Your task to perform on an android device: turn notification dots on Image 0: 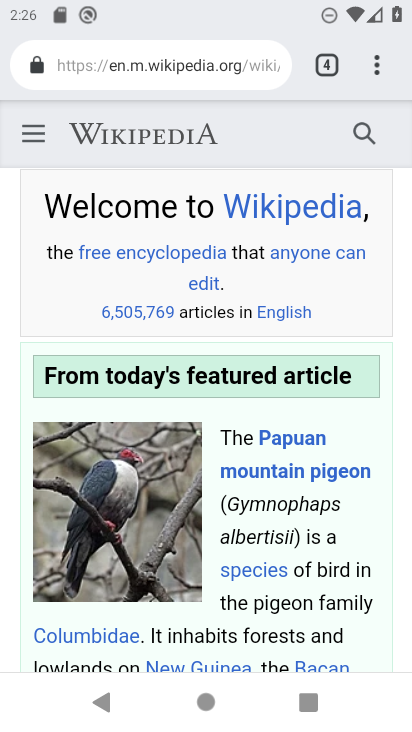
Step 0: press home button
Your task to perform on an android device: turn notification dots on Image 1: 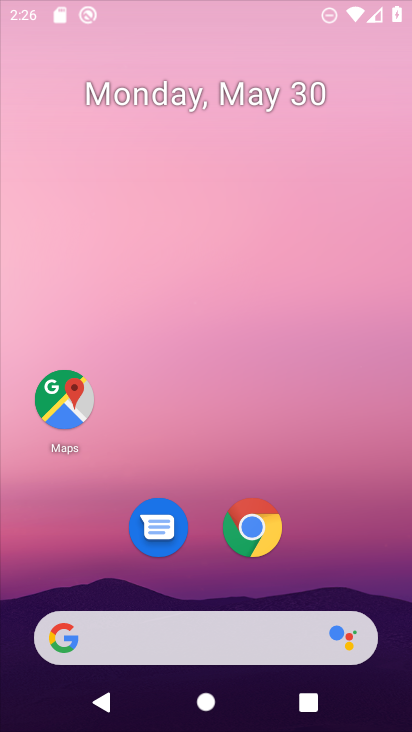
Step 1: drag from (252, 695) to (151, 37)
Your task to perform on an android device: turn notification dots on Image 2: 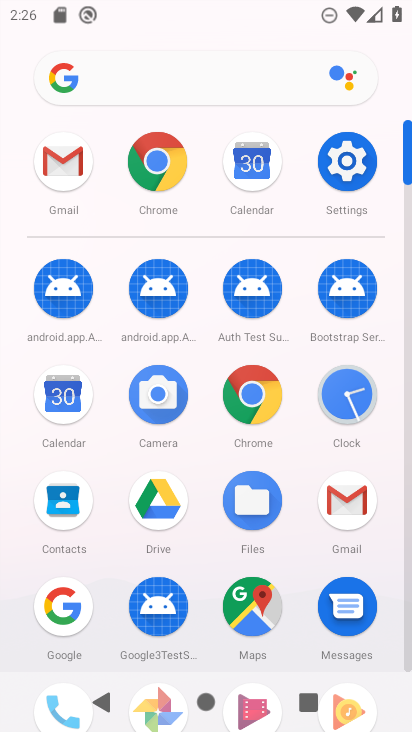
Step 2: click (344, 175)
Your task to perform on an android device: turn notification dots on Image 3: 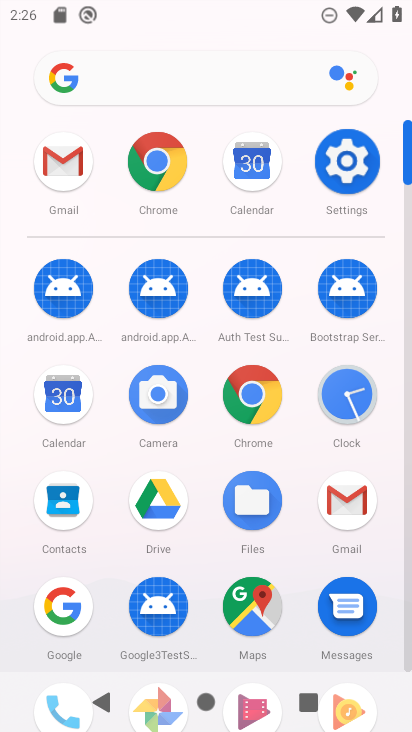
Step 3: click (344, 175)
Your task to perform on an android device: turn notification dots on Image 4: 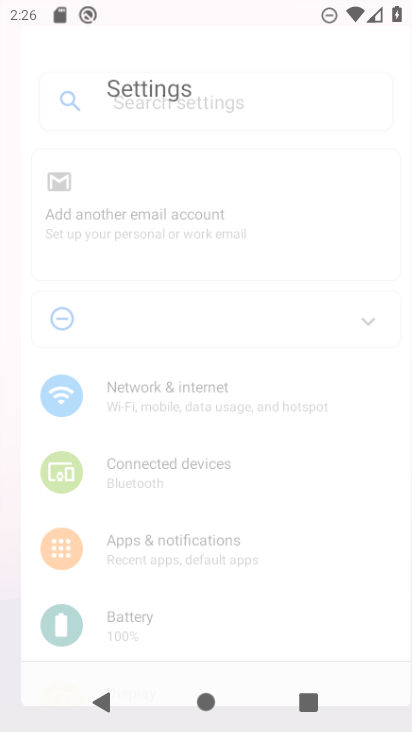
Step 4: click (344, 175)
Your task to perform on an android device: turn notification dots on Image 5: 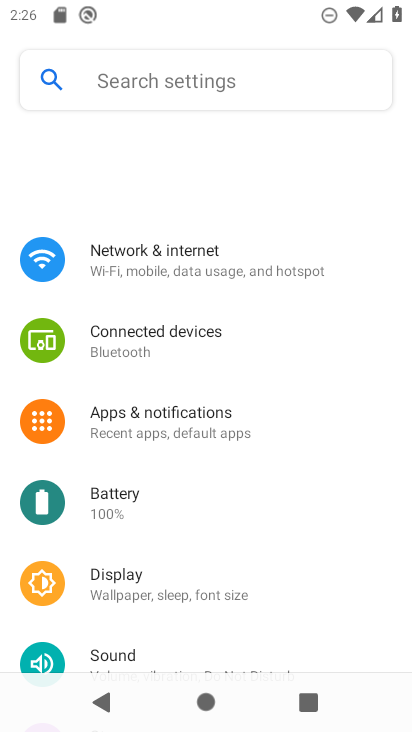
Step 5: click (344, 175)
Your task to perform on an android device: turn notification dots on Image 6: 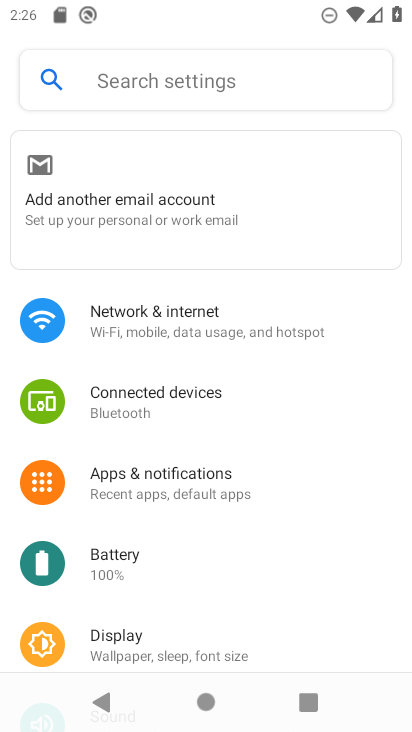
Step 6: click (148, 466)
Your task to perform on an android device: turn notification dots on Image 7: 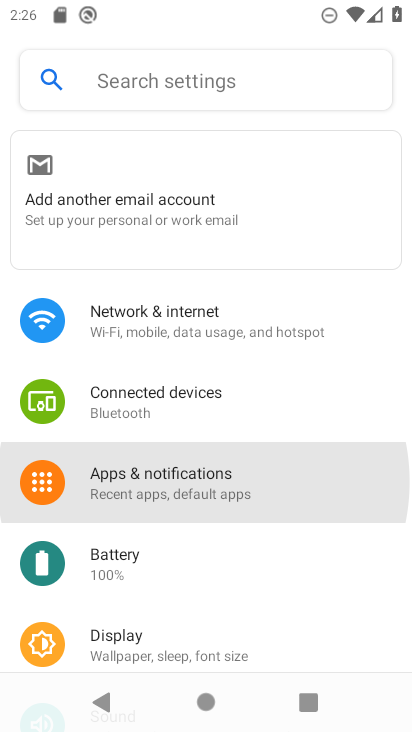
Step 7: click (152, 482)
Your task to perform on an android device: turn notification dots on Image 8: 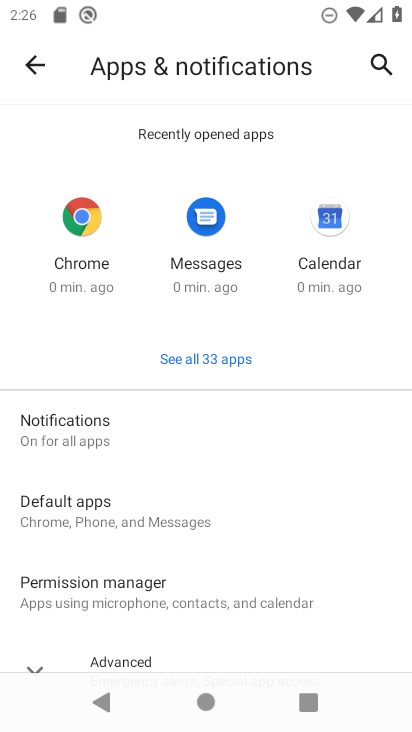
Step 8: click (79, 432)
Your task to perform on an android device: turn notification dots on Image 9: 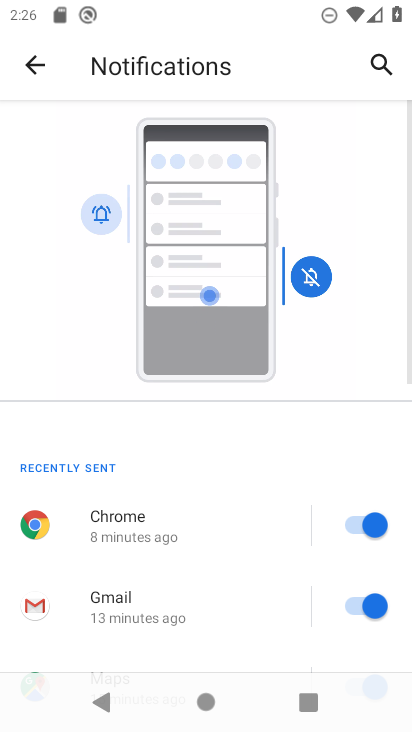
Step 9: drag from (140, 420) to (133, 371)
Your task to perform on an android device: turn notification dots on Image 10: 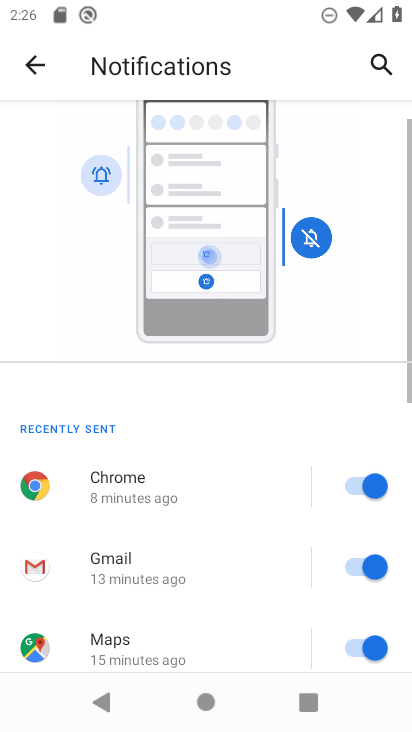
Step 10: drag from (151, 511) to (117, 252)
Your task to perform on an android device: turn notification dots on Image 11: 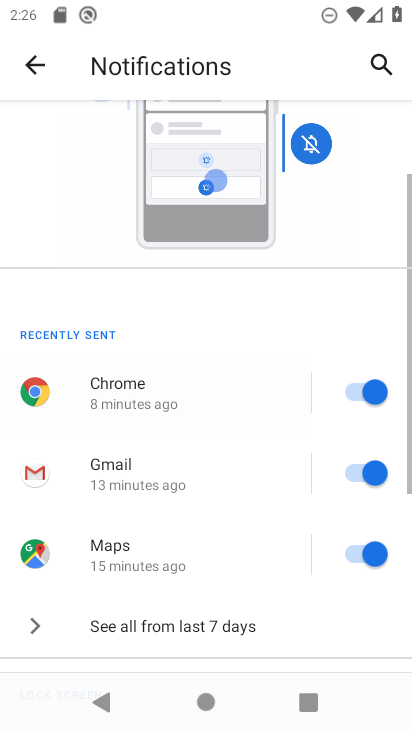
Step 11: drag from (207, 547) to (194, 281)
Your task to perform on an android device: turn notification dots on Image 12: 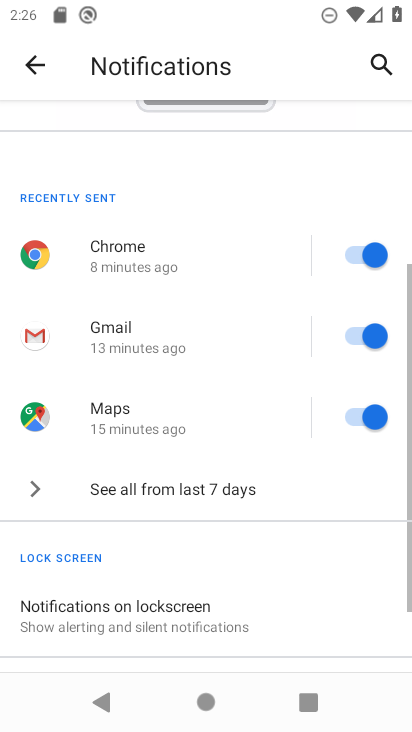
Step 12: drag from (200, 497) to (178, 286)
Your task to perform on an android device: turn notification dots on Image 13: 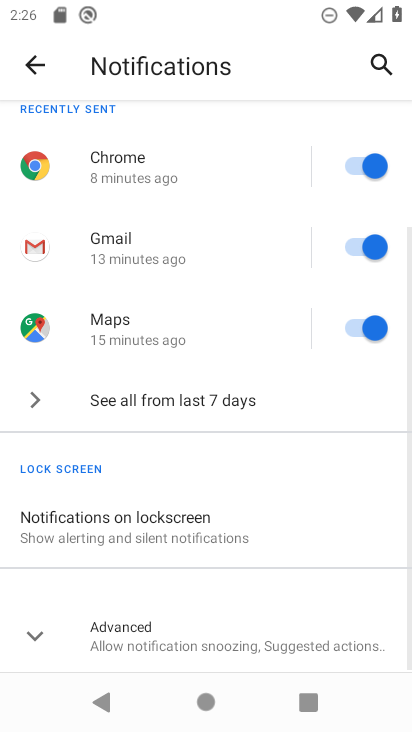
Step 13: drag from (188, 498) to (191, 242)
Your task to perform on an android device: turn notification dots on Image 14: 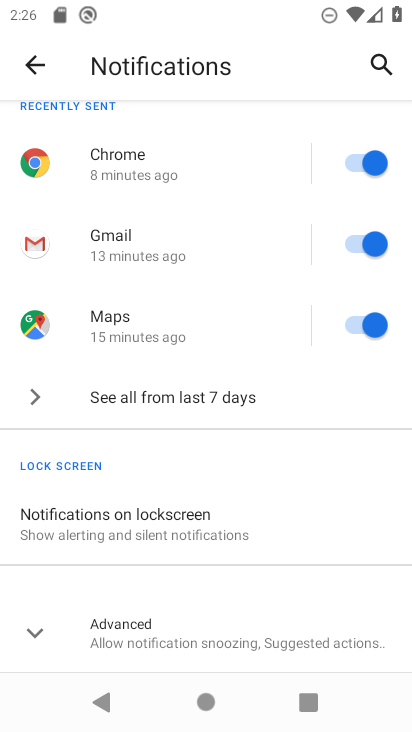
Step 14: drag from (223, 502) to (240, 239)
Your task to perform on an android device: turn notification dots on Image 15: 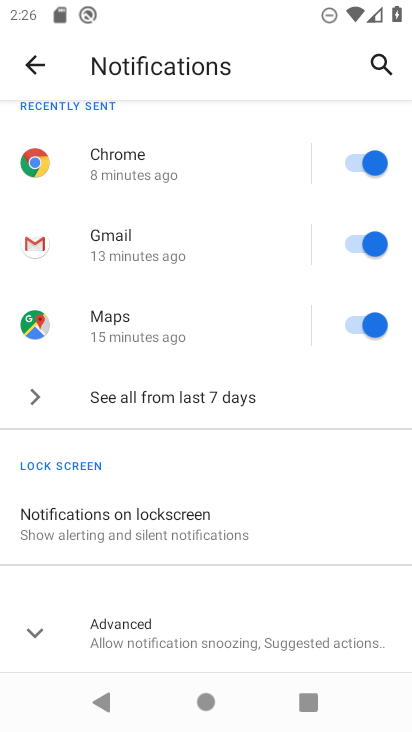
Step 15: click (143, 628)
Your task to perform on an android device: turn notification dots on Image 16: 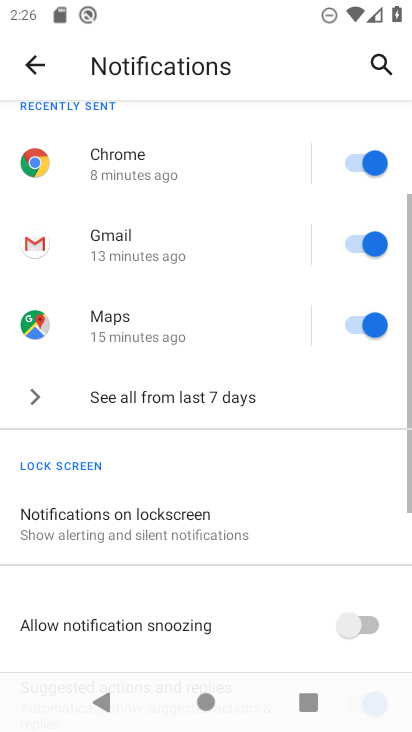
Step 16: drag from (201, 600) to (190, 221)
Your task to perform on an android device: turn notification dots on Image 17: 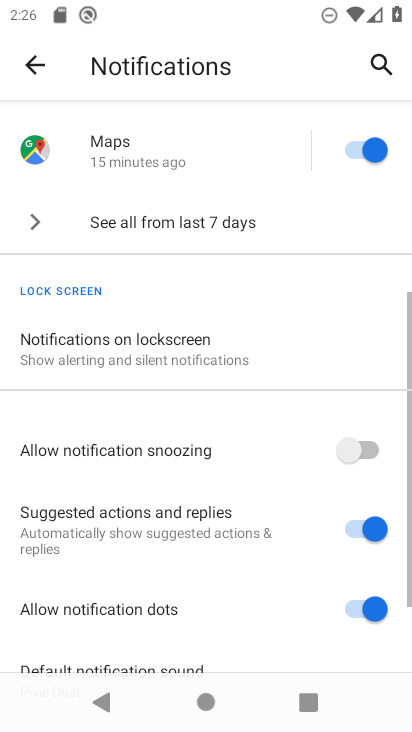
Step 17: drag from (265, 555) to (217, 195)
Your task to perform on an android device: turn notification dots on Image 18: 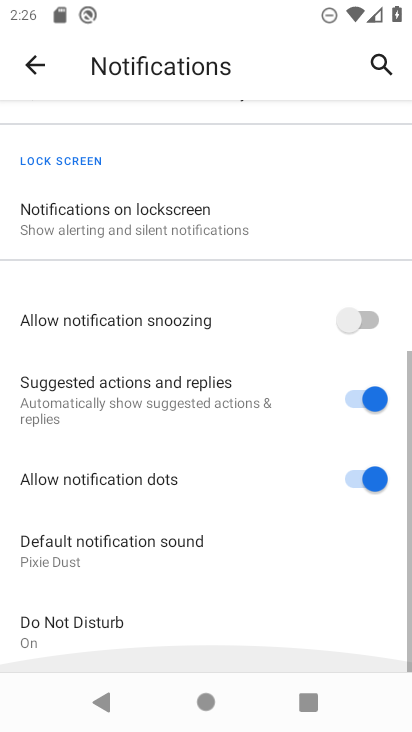
Step 18: drag from (296, 553) to (251, 231)
Your task to perform on an android device: turn notification dots on Image 19: 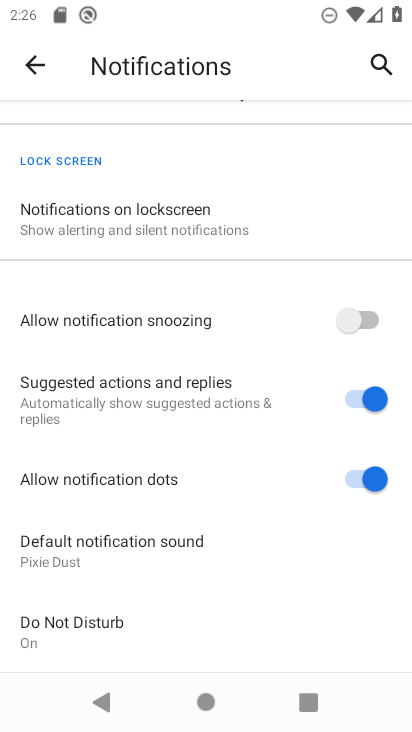
Step 19: click (371, 484)
Your task to perform on an android device: turn notification dots on Image 20: 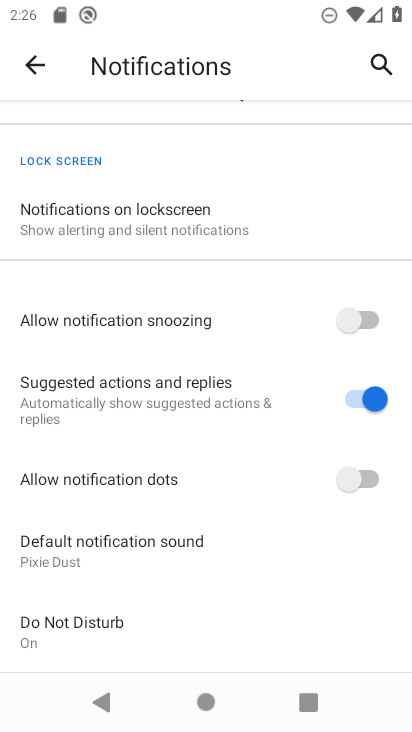
Step 20: click (358, 473)
Your task to perform on an android device: turn notification dots on Image 21: 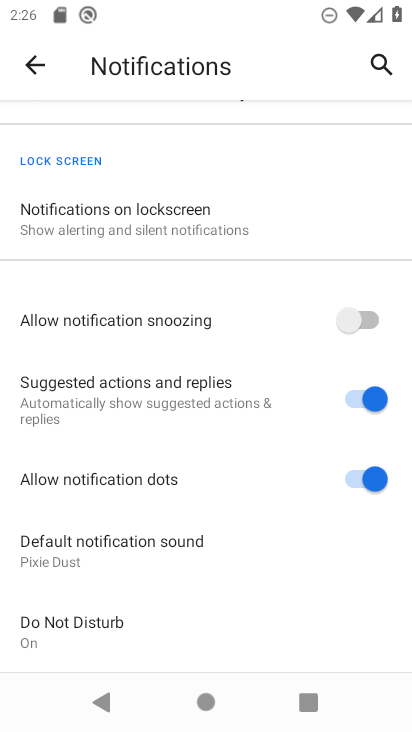
Step 21: task complete